Your task to perform on an android device: What's on my calendar today? Image 0: 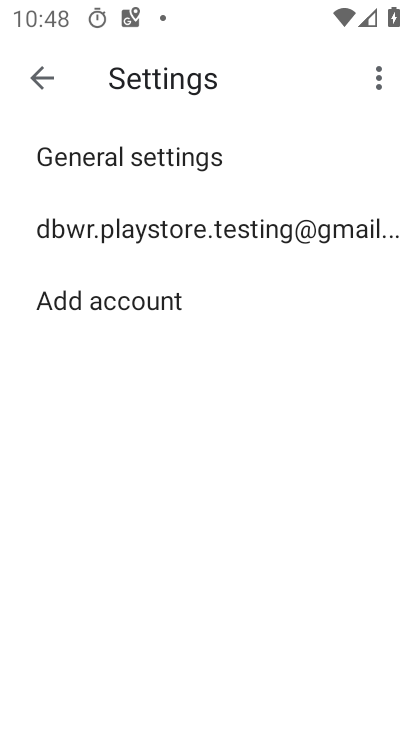
Step 0: click (293, 217)
Your task to perform on an android device: What's on my calendar today? Image 1: 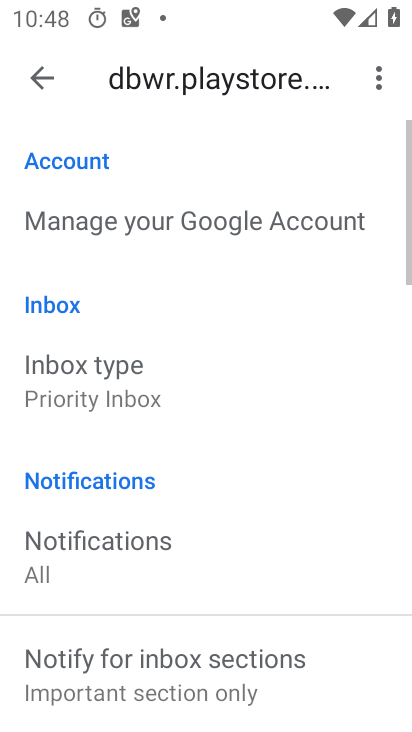
Step 1: press home button
Your task to perform on an android device: What's on my calendar today? Image 2: 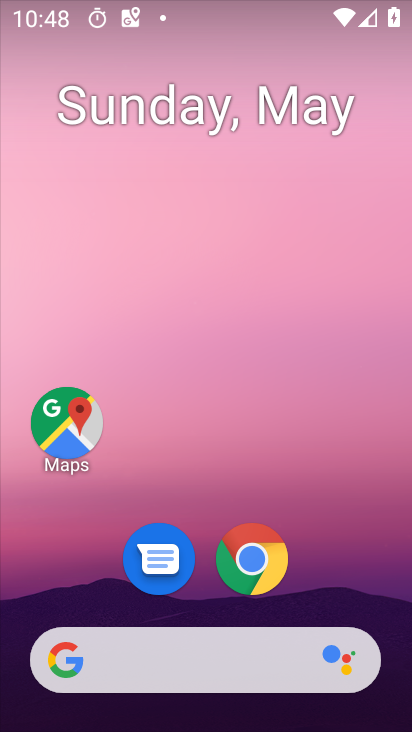
Step 2: drag from (355, 576) to (319, 200)
Your task to perform on an android device: What's on my calendar today? Image 3: 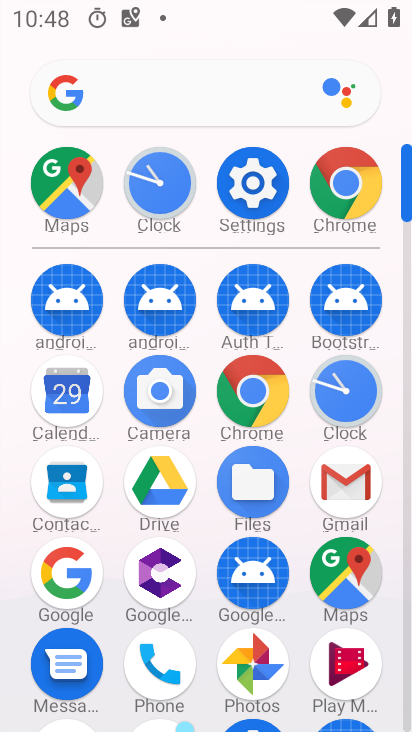
Step 3: drag from (276, 589) to (308, 291)
Your task to perform on an android device: What's on my calendar today? Image 4: 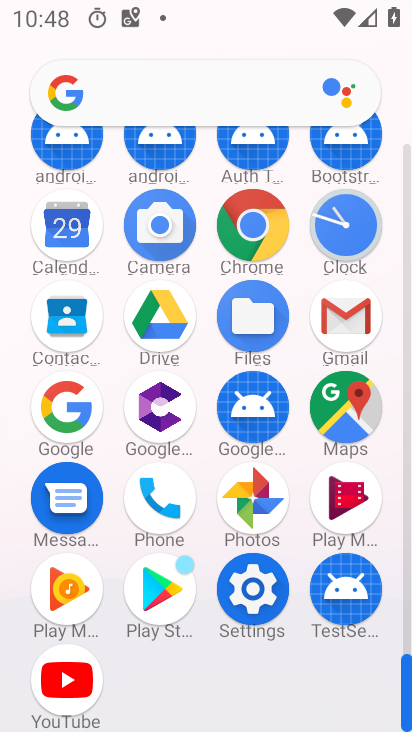
Step 4: click (60, 331)
Your task to perform on an android device: What's on my calendar today? Image 5: 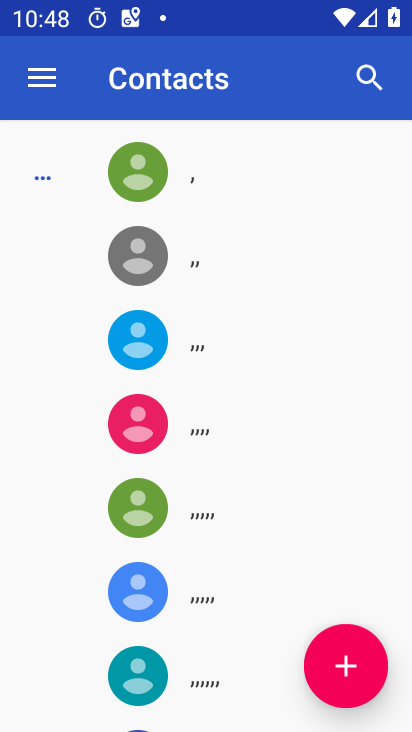
Step 5: press back button
Your task to perform on an android device: What's on my calendar today? Image 6: 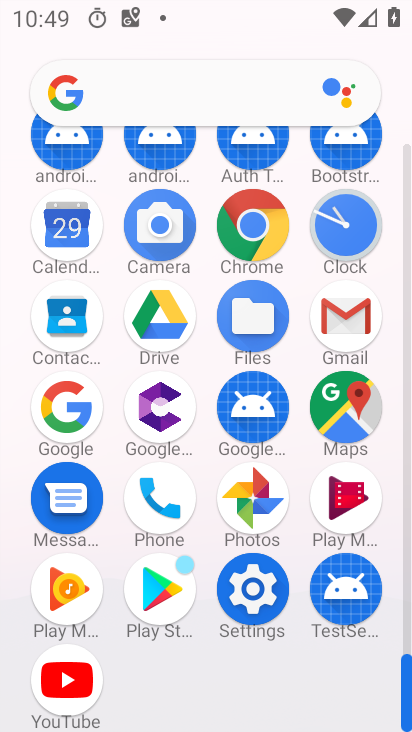
Step 6: click (57, 241)
Your task to perform on an android device: What's on my calendar today? Image 7: 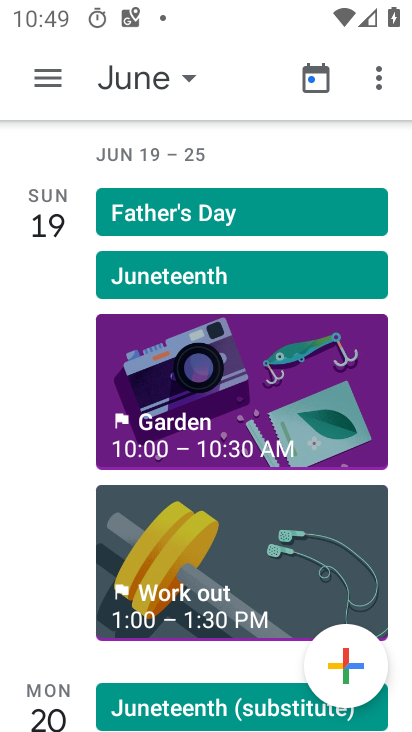
Step 7: drag from (213, 627) to (235, 343)
Your task to perform on an android device: What's on my calendar today? Image 8: 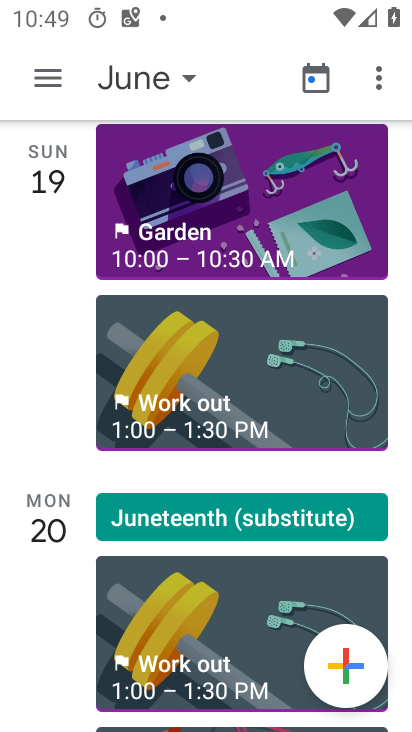
Step 8: drag from (218, 279) to (221, 569)
Your task to perform on an android device: What's on my calendar today? Image 9: 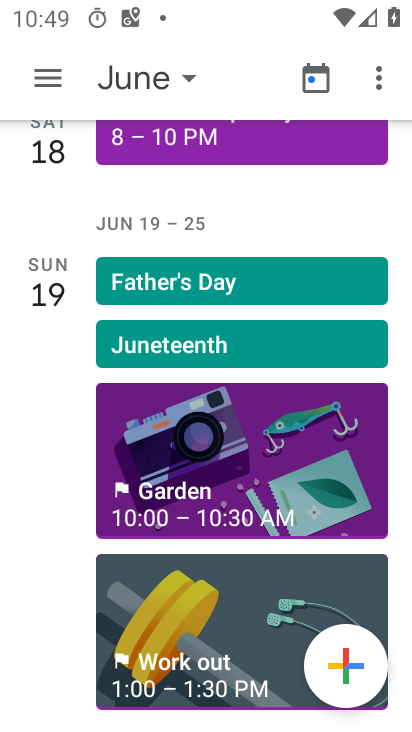
Step 9: click (153, 84)
Your task to perform on an android device: What's on my calendar today? Image 10: 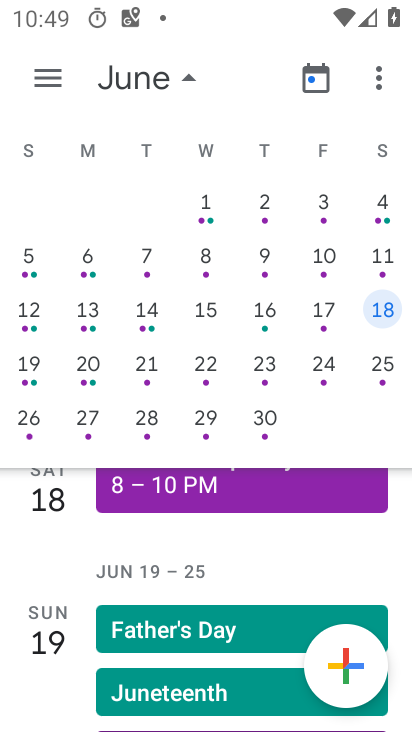
Step 10: drag from (56, 301) to (361, 285)
Your task to perform on an android device: What's on my calendar today? Image 11: 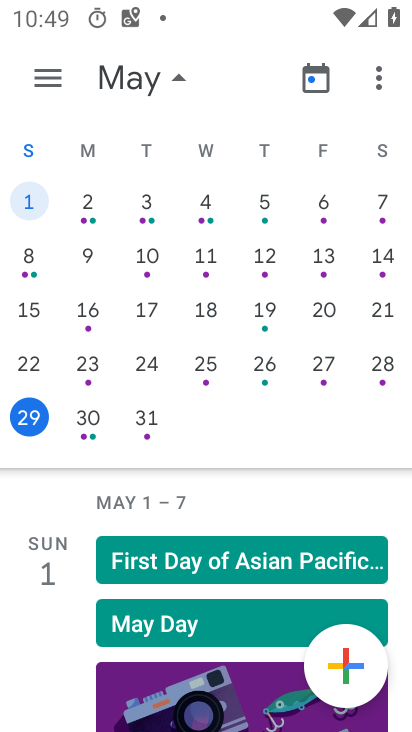
Step 11: click (96, 424)
Your task to perform on an android device: What's on my calendar today? Image 12: 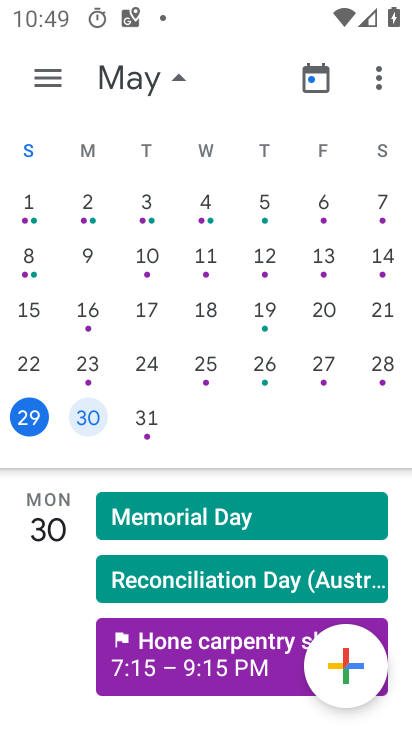
Step 12: task complete